Your task to perform on an android device: Open accessibility settings Image 0: 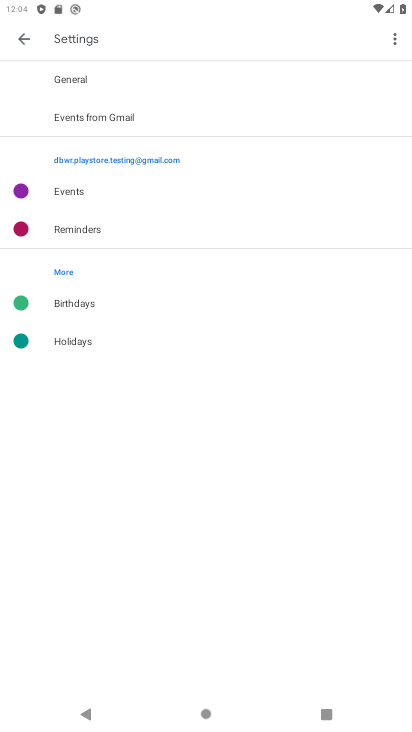
Step 0: press home button
Your task to perform on an android device: Open accessibility settings Image 1: 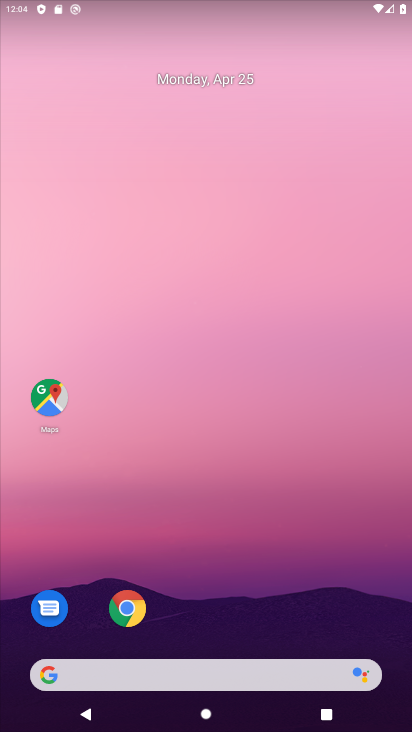
Step 1: drag from (230, 724) to (228, 223)
Your task to perform on an android device: Open accessibility settings Image 2: 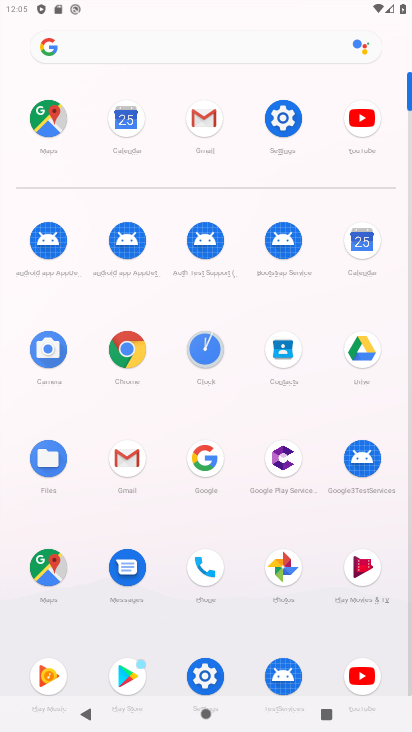
Step 2: click (292, 114)
Your task to perform on an android device: Open accessibility settings Image 3: 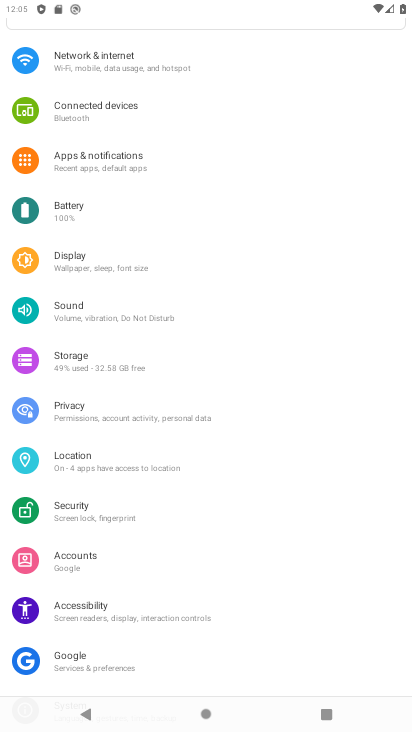
Step 3: click (82, 605)
Your task to perform on an android device: Open accessibility settings Image 4: 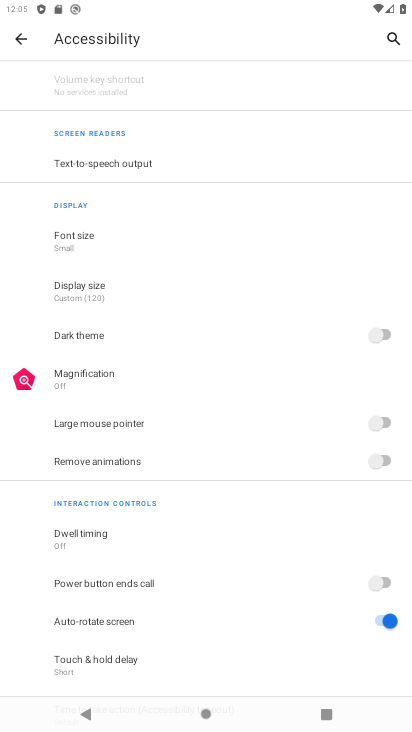
Step 4: task complete